Your task to perform on an android device: change the clock style Image 0: 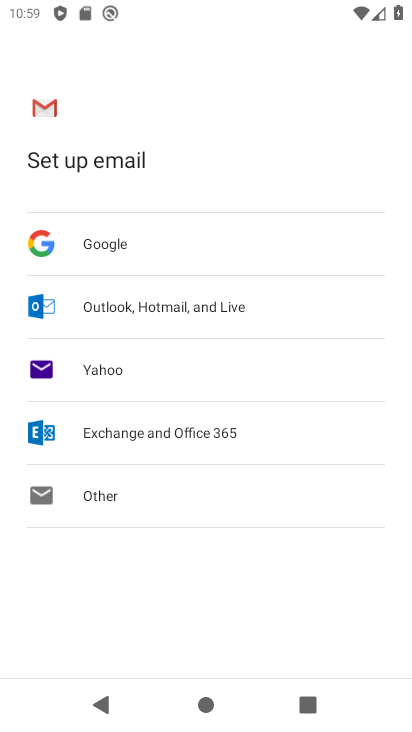
Step 0: press home button
Your task to perform on an android device: change the clock style Image 1: 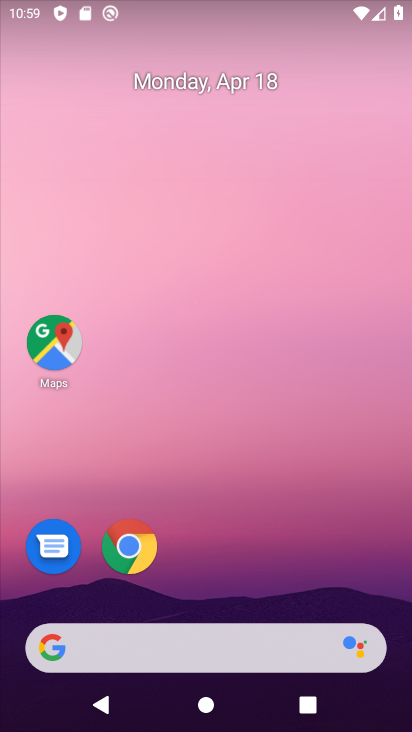
Step 1: drag from (367, 532) to (375, 103)
Your task to perform on an android device: change the clock style Image 2: 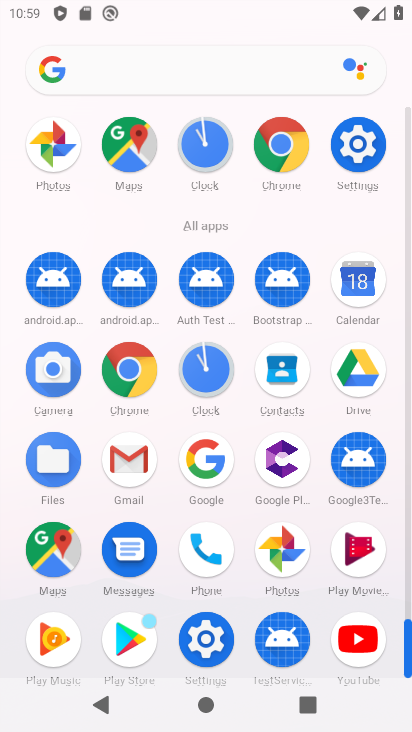
Step 2: click (205, 373)
Your task to perform on an android device: change the clock style Image 3: 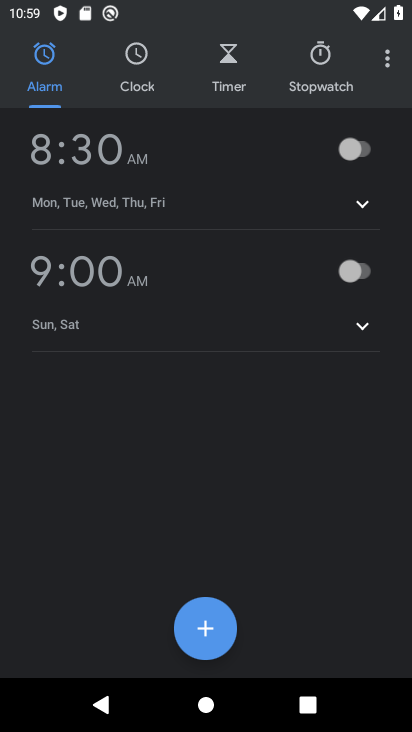
Step 3: click (389, 52)
Your task to perform on an android device: change the clock style Image 4: 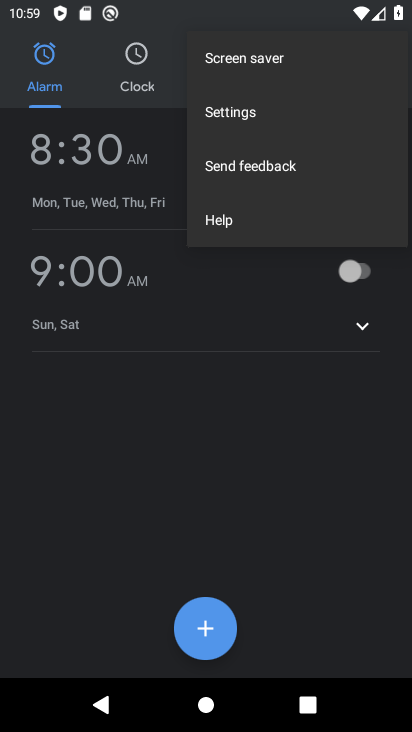
Step 4: click (250, 108)
Your task to perform on an android device: change the clock style Image 5: 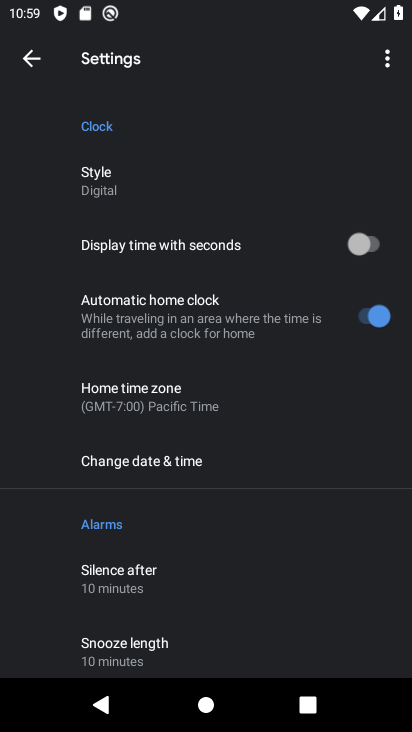
Step 5: click (113, 189)
Your task to perform on an android device: change the clock style Image 6: 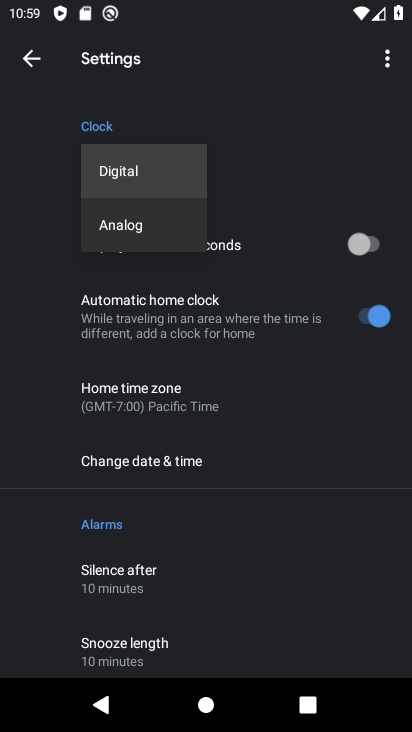
Step 6: click (125, 221)
Your task to perform on an android device: change the clock style Image 7: 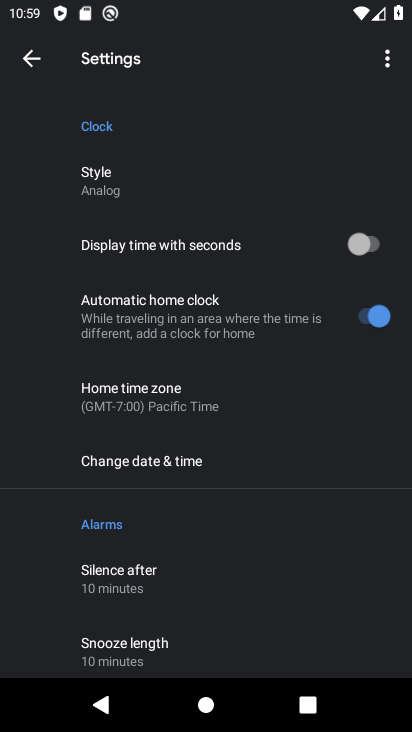
Step 7: task complete